Your task to perform on an android device: turn pop-ups off in chrome Image 0: 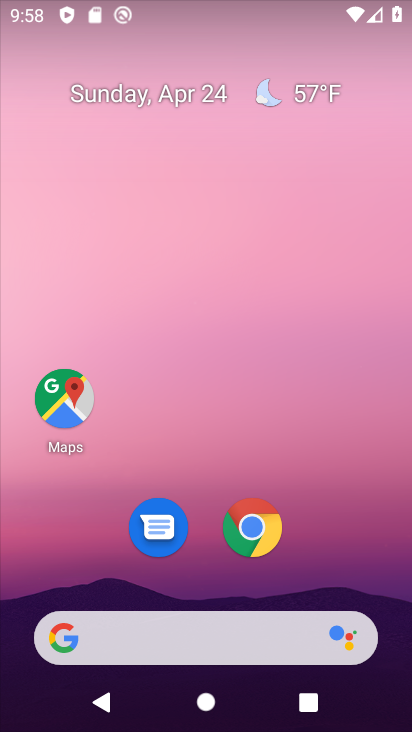
Step 0: drag from (282, 683) to (235, 9)
Your task to perform on an android device: turn pop-ups off in chrome Image 1: 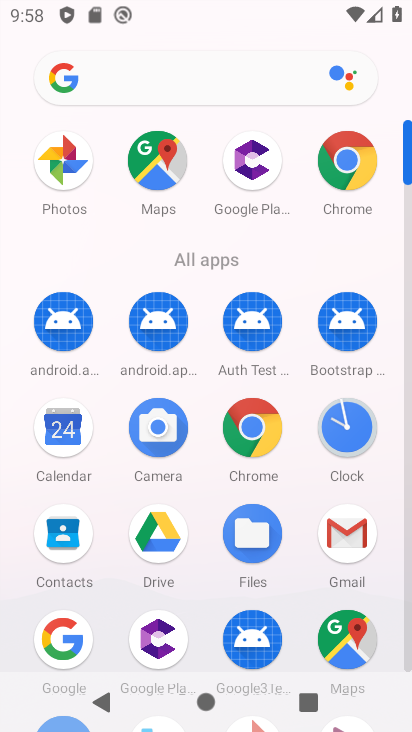
Step 1: click (344, 162)
Your task to perform on an android device: turn pop-ups off in chrome Image 2: 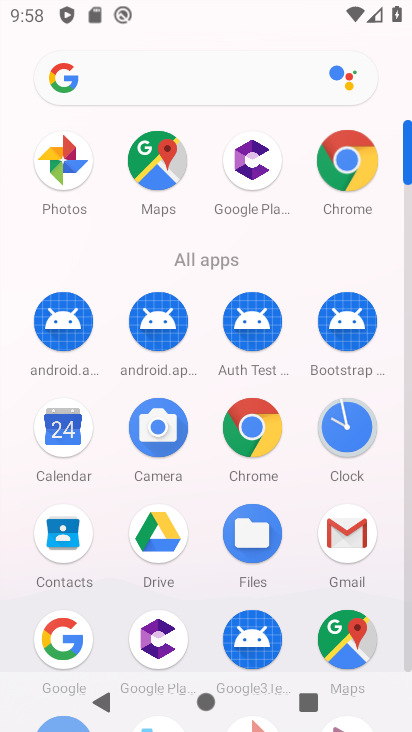
Step 2: click (347, 164)
Your task to perform on an android device: turn pop-ups off in chrome Image 3: 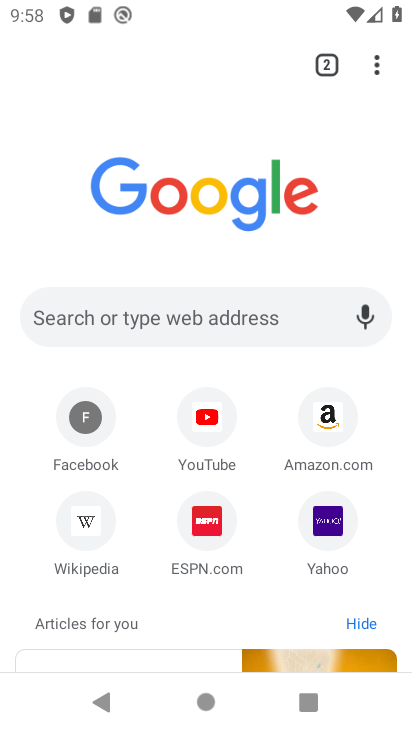
Step 3: drag from (376, 62) to (163, 542)
Your task to perform on an android device: turn pop-ups off in chrome Image 4: 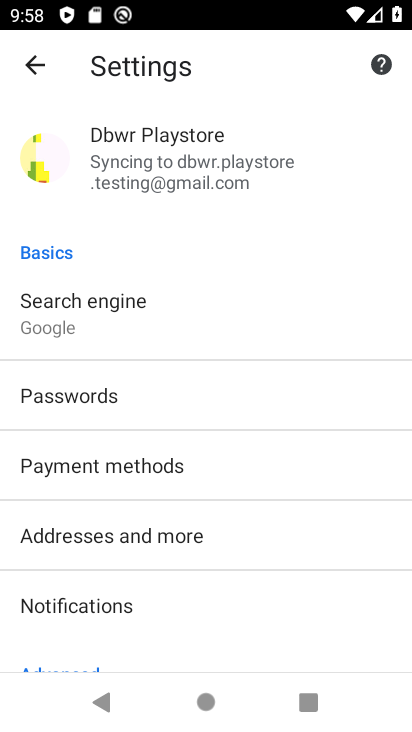
Step 4: drag from (138, 437) to (154, 136)
Your task to perform on an android device: turn pop-ups off in chrome Image 5: 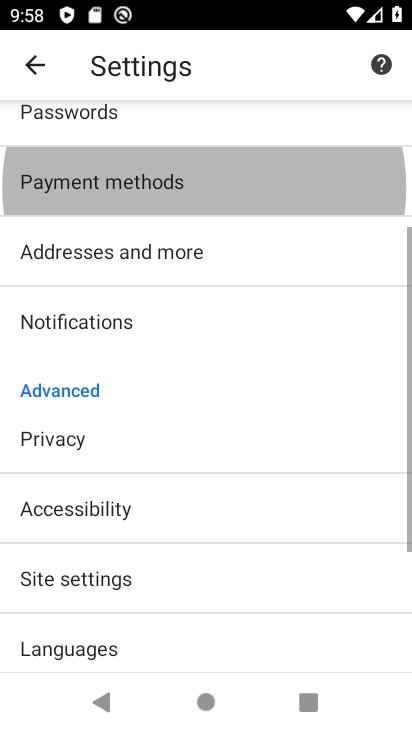
Step 5: drag from (126, 478) to (133, 16)
Your task to perform on an android device: turn pop-ups off in chrome Image 6: 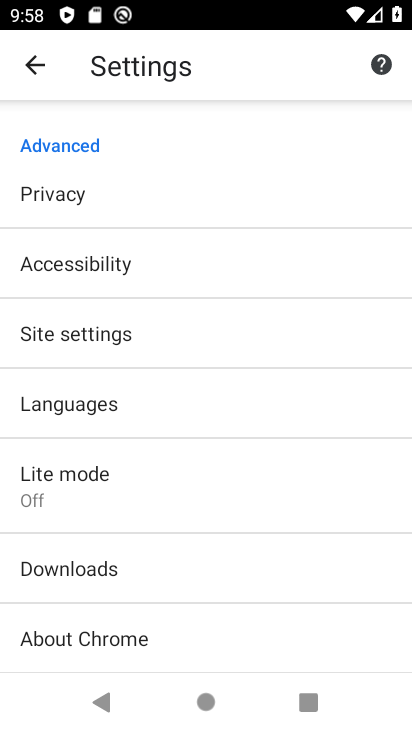
Step 6: click (64, 337)
Your task to perform on an android device: turn pop-ups off in chrome Image 7: 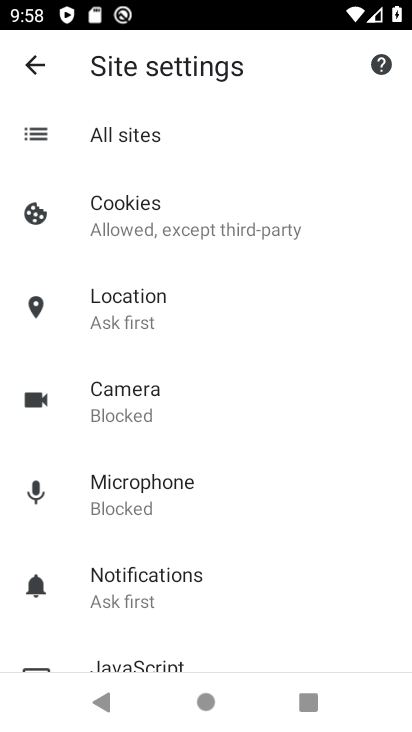
Step 7: drag from (188, 526) to (176, 40)
Your task to perform on an android device: turn pop-ups off in chrome Image 8: 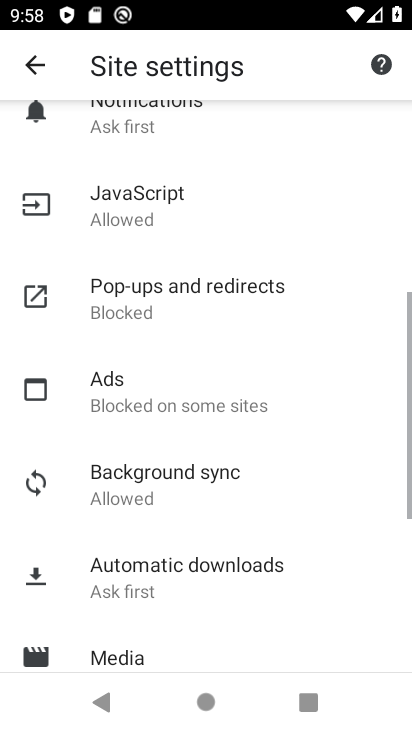
Step 8: drag from (184, 429) to (163, 30)
Your task to perform on an android device: turn pop-ups off in chrome Image 9: 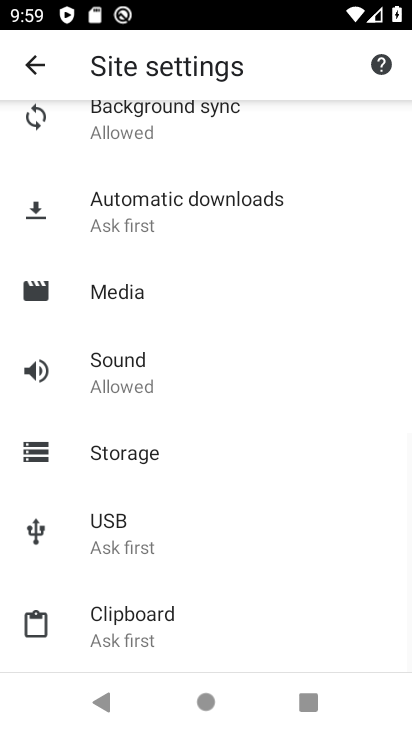
Step 9: drag from (133, 189) to (191, 582)
Your task to perform on an android device: turn pop-ups off in chrome Image 10: 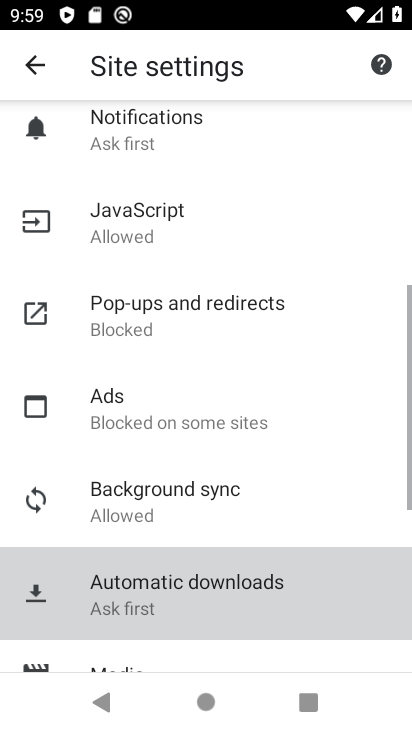
Step 10: drag from (171, 266) to (165, 670)
Your task to perform on an android device: turn pop-ups off in chrome Image 11: 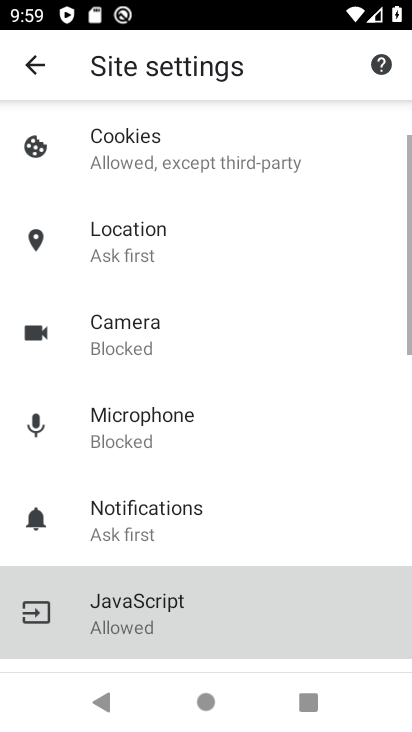
Step 11: drag from (164, 257) to (191, 627)
Your task to perform on an android device: turn pop-ups off in chrome Image 12: 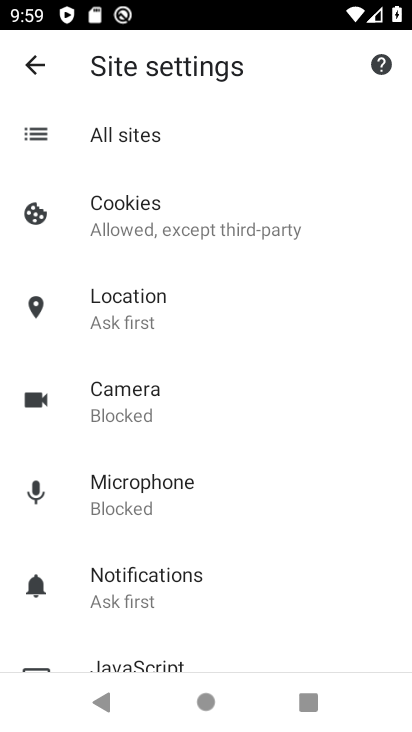
Step 12: drag from (176, 545) to (162, 116)
Your task to perform on an android device: turn pop-ups off in chrome Image 13: 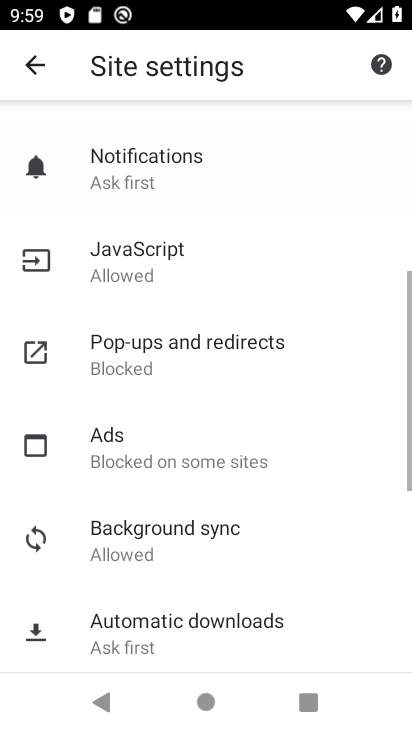
Step 13: drag from (180, 532) to (150, 47)
Your task to perform on an android device: turn pop-ups off in chrome Image 14: 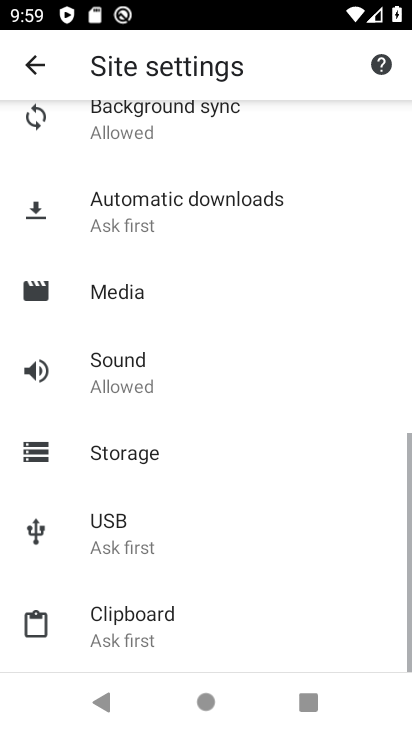
Step 14: drag from (156, 242) to (147, 488)
Your task to perform on an android device: turn pop-ups off in chrome Image 15: 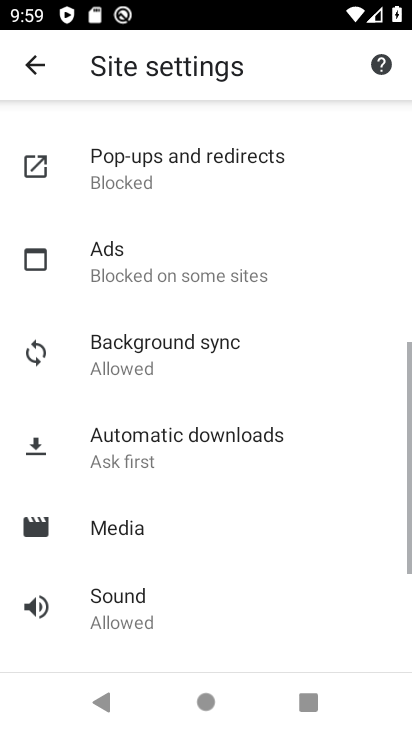
Step 15: drag from (143, 288) to (170, 472)
Your task to perform on an android device: turn pop-ups off in chrome Image 16: 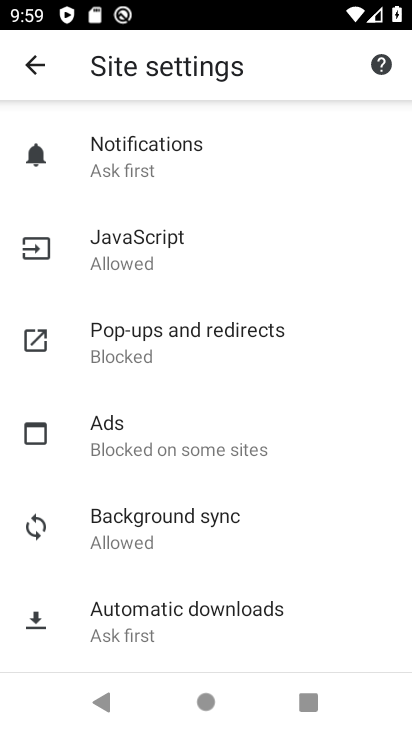
Step 16: click (127, 334)
Your task to perform on an android device: turn pop-ups off in chrome Image 17: 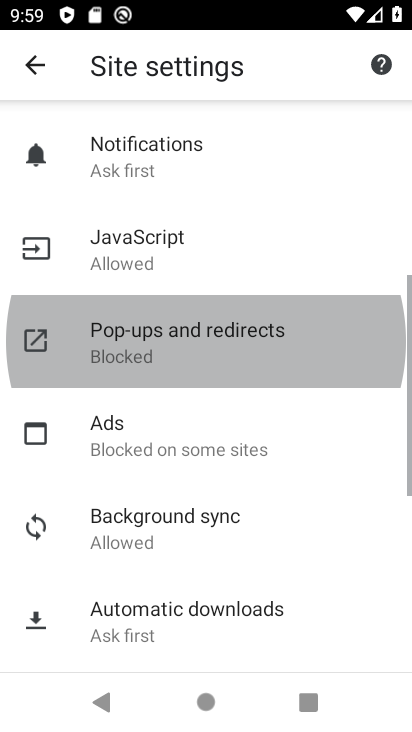
Step 17: click (129, 331)
Your task to perform on an android device: turn pop-ups off in chrome Image 18: 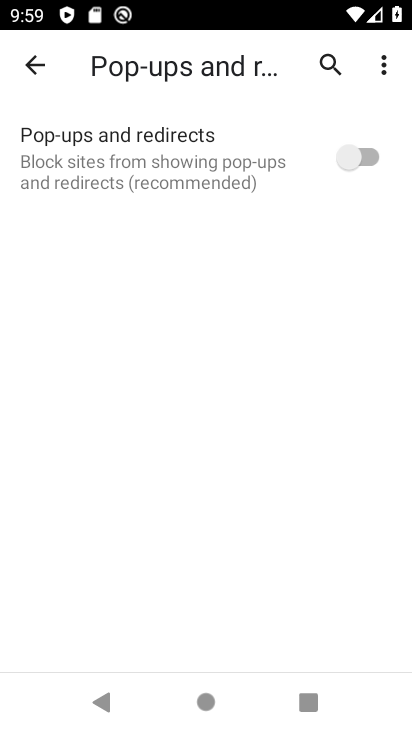
Step 18: task complete